Your task to perform on an android device: Go to wifi settings Image 0: 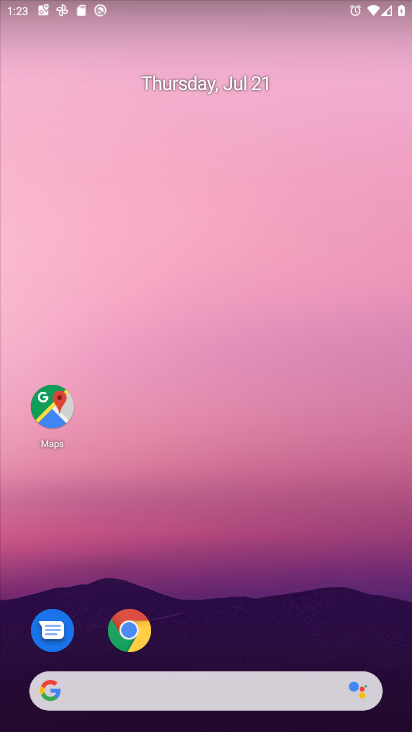
Step 0: drag from (219, 646) to (241, 378)
Your task to perform on an android device: Go to wifi settings Image 1: 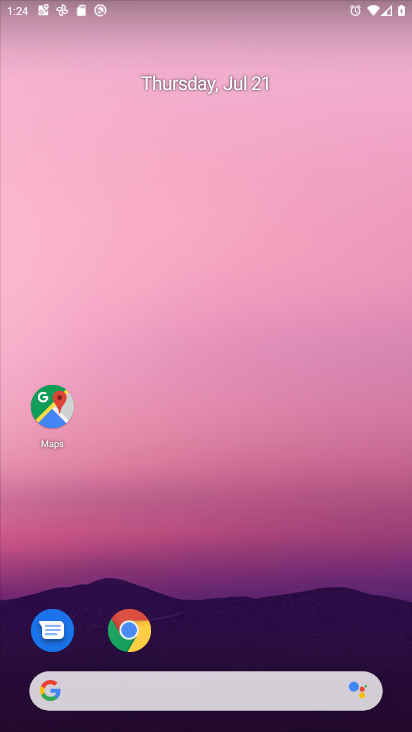
Step 1: drag from (182, 630) to (262, 159)
Your task to perform on an android device: Go to wifi settings Image 2: 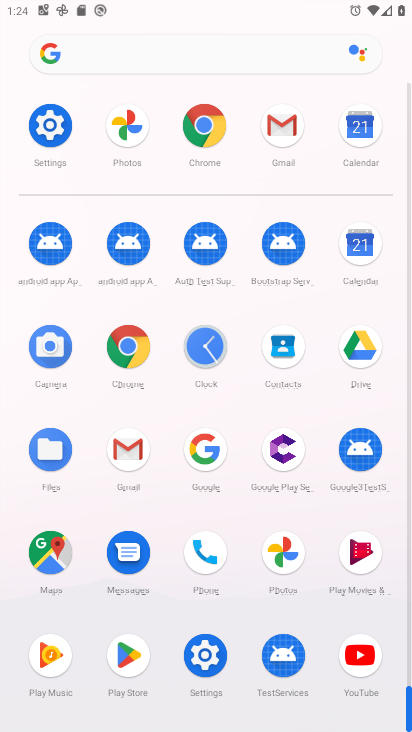
Step 2: click (42, 130)
Your task to perform on an android device: Go to wifi settings Image 3: 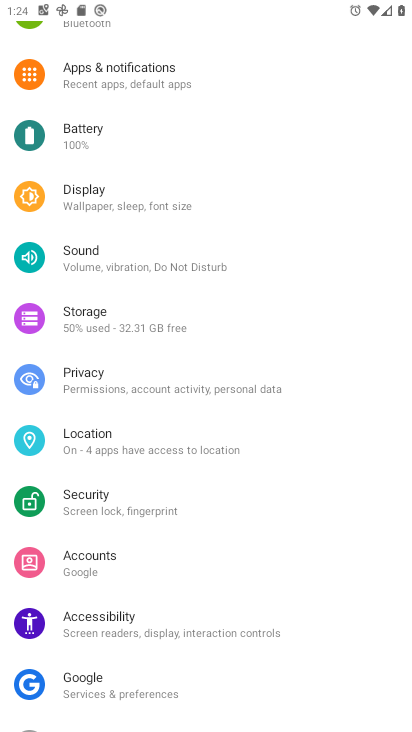
Step 3: drag from (163, 98) to (279, 647)
Your task to perform on an android device: Go to wifi settings Image 4: 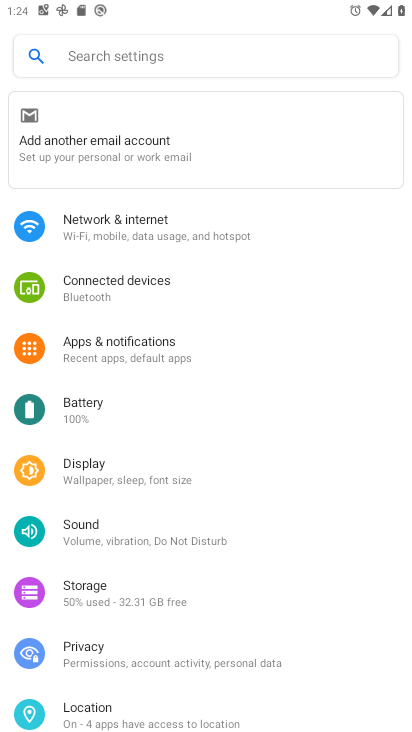
Step 4: click (114, 228)
Your task to perform on an android device: Go to wifi settings Image 5: 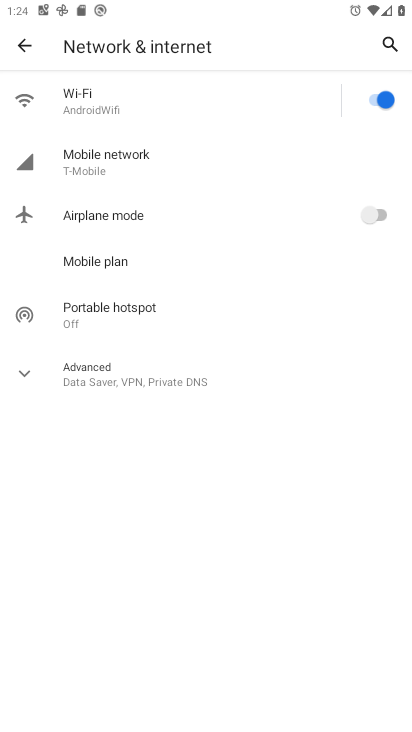
Step 5: click (123, 94)
Your task to perform on an android device: Go to wifi settings Image 6: 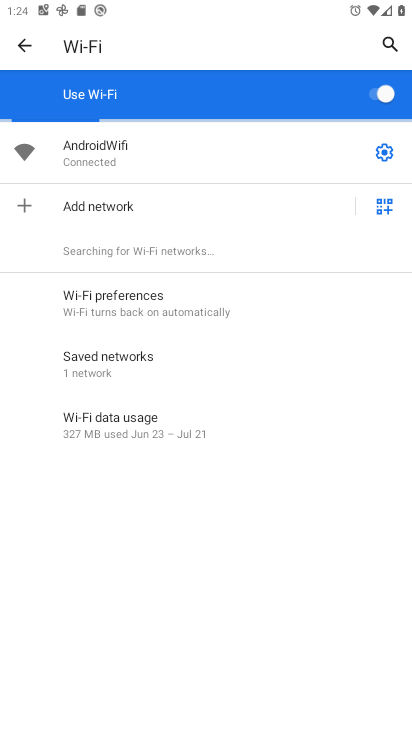
Step 6: click (387, 154)
Your task to perform on an android device: Go to wifi settings Image 7: 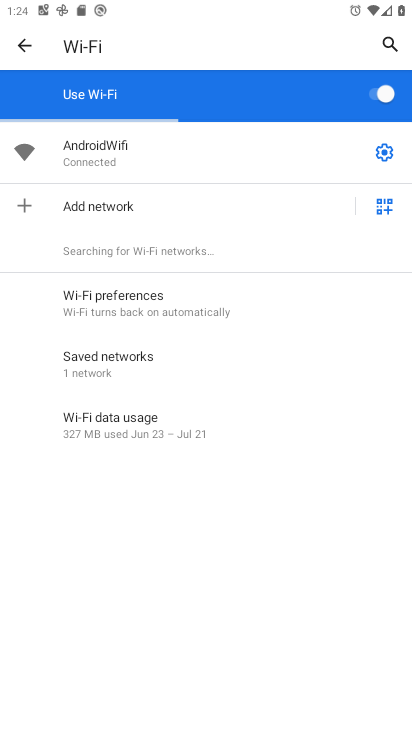
Step 7: drag from (253, 505) to (275, 316)
Your task to perform on an android device: Go to wifi settings Image 8: 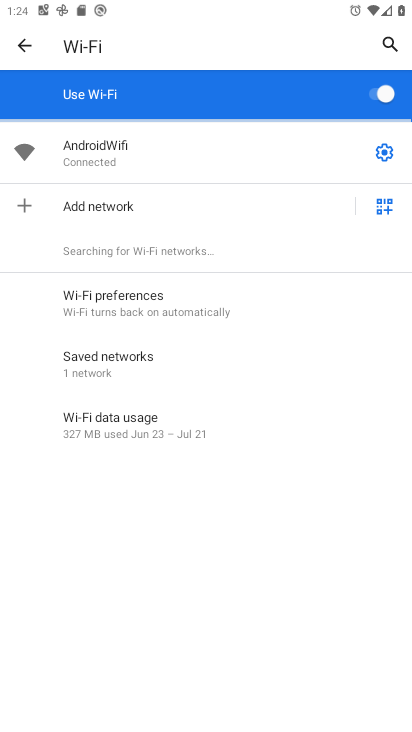
Step 8: click (383, 152)
Your task to perform on an android device: Go to wifi settings Image 9: 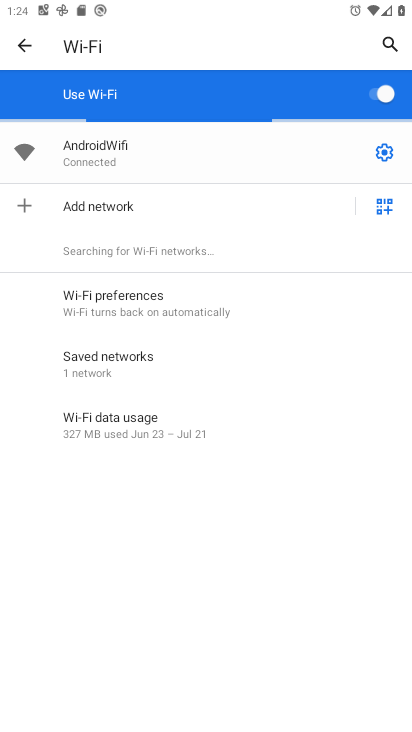
Step 9: task complete